Your task to perform on an android device: empty trash in google photos Image 0: 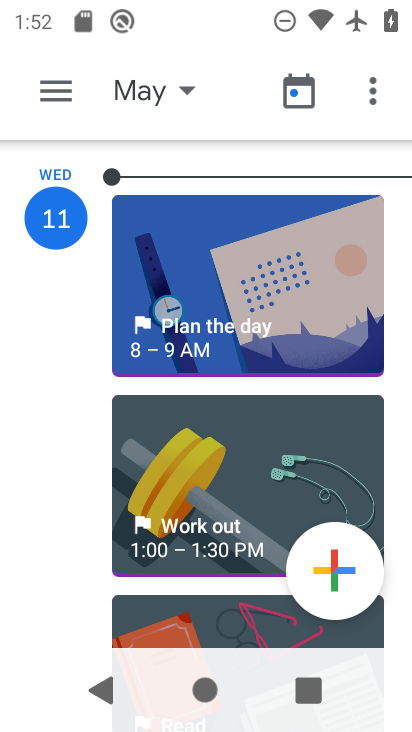
Step 0: press home button
Your task to perform on an android device: empty trash in google photos Image 1: 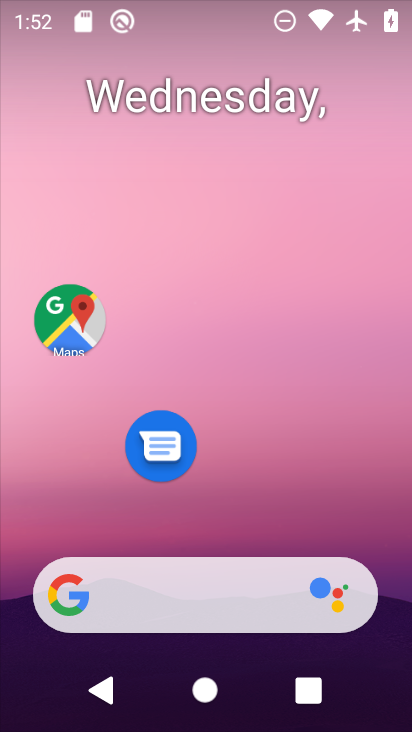
Step 1: drag from (244, 488) to (275, 82)
Your task to perform on an android device: empty trash in google photos Image 2: 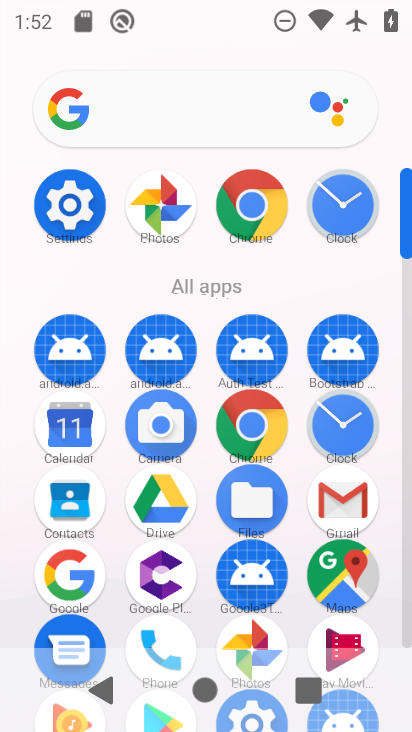
Step 2: click (163, 231)
Your task to perform on an android device: empty trash in google photos Image 3: 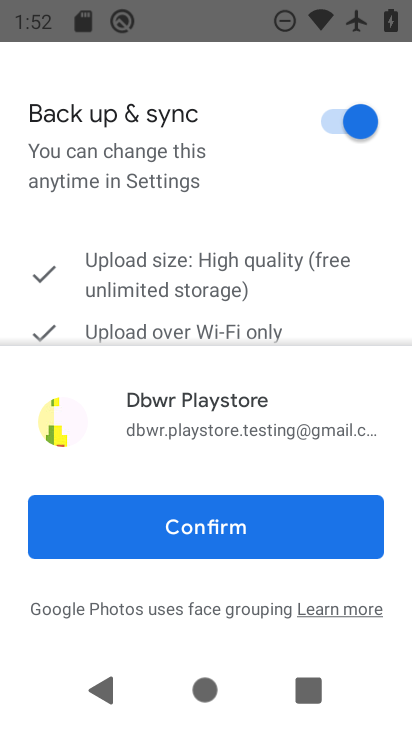
Step 3: click (170, 516)
Your task to perform on an android device: empty trash in google photos Image 4: 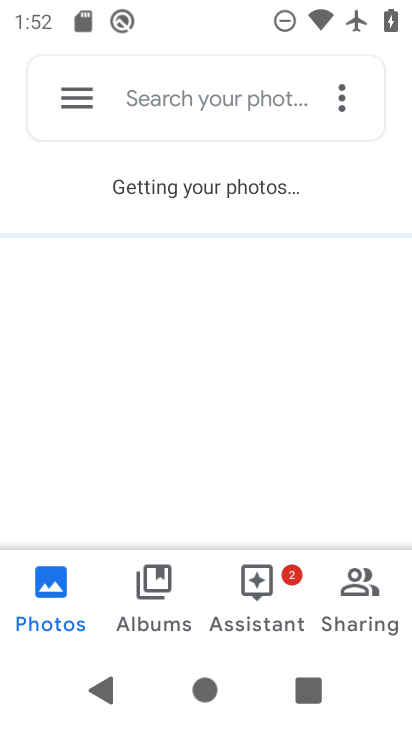
Step 4: click (67, 101)
Your task to perform on an android device: empty trash in google photos Image 5: 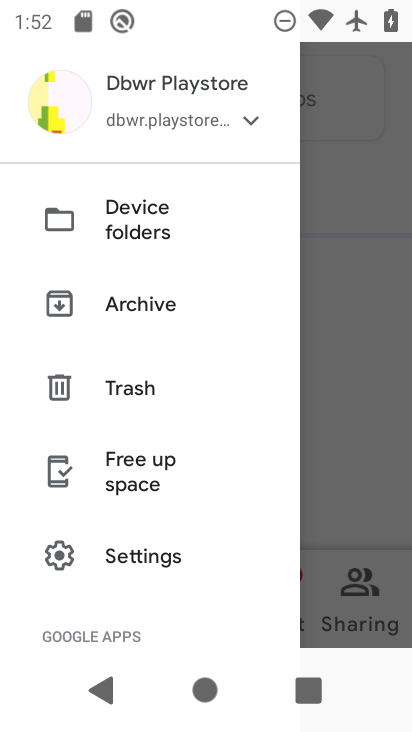
Step 5: click (75, 402)
Your task to perform on an android device: empty trash in google photos Image 6: 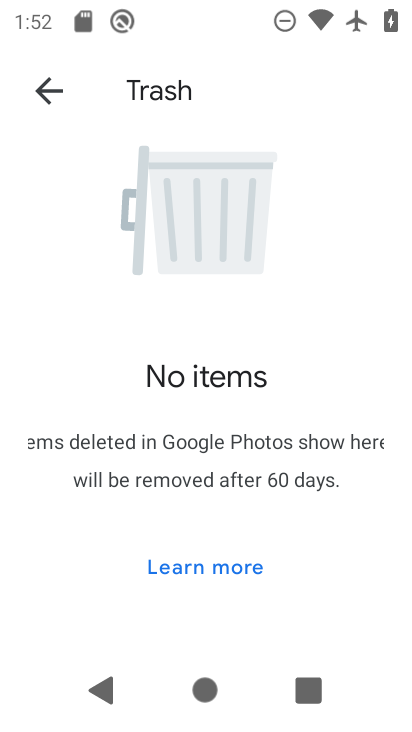
Step 6: task complete